Your task to perform on an android device: Open sound settings Image 0: 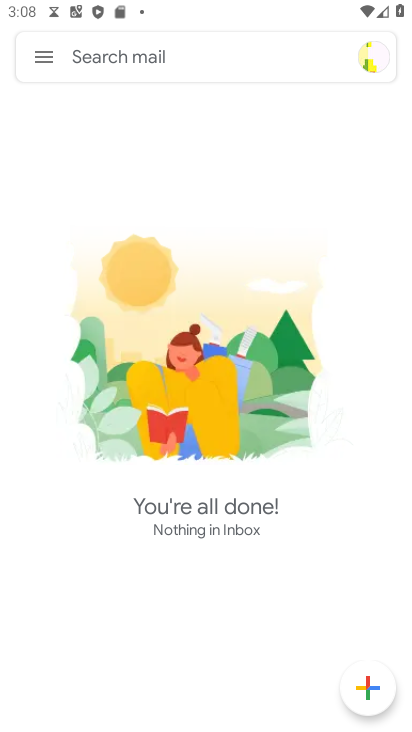
Step 0: drag from (238, 623) to (210, 243)
Your task to perform on an android device: Open sound settings Image 1: 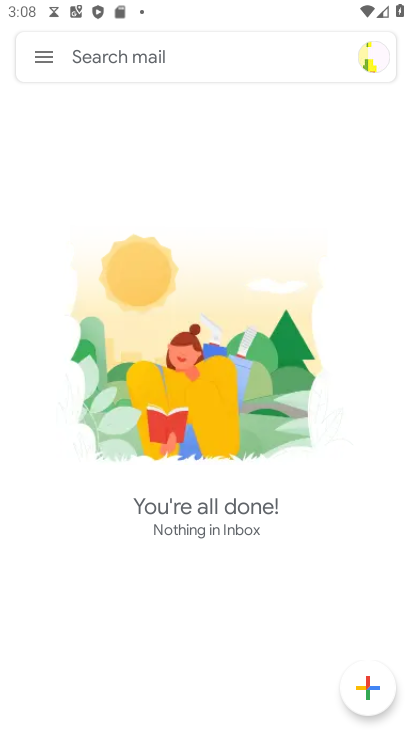
Step 1: click (53, 59)
Your task to perform on an android device: Open sound settings Image 2: 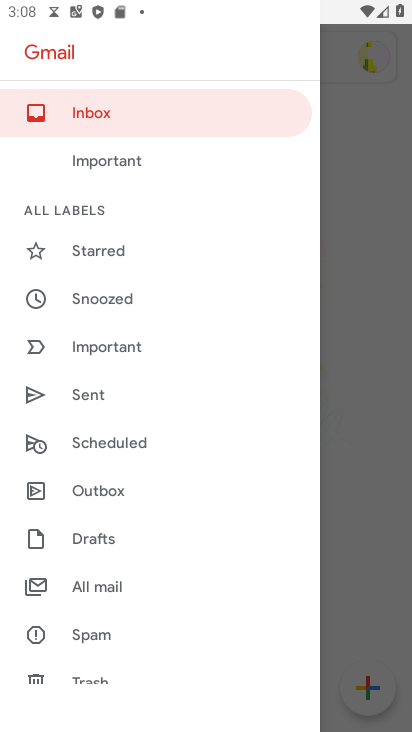
Step 2: drag from (163, 588) to (228, 175)
Your task to perform on an android device: Open sound settings Image 3: 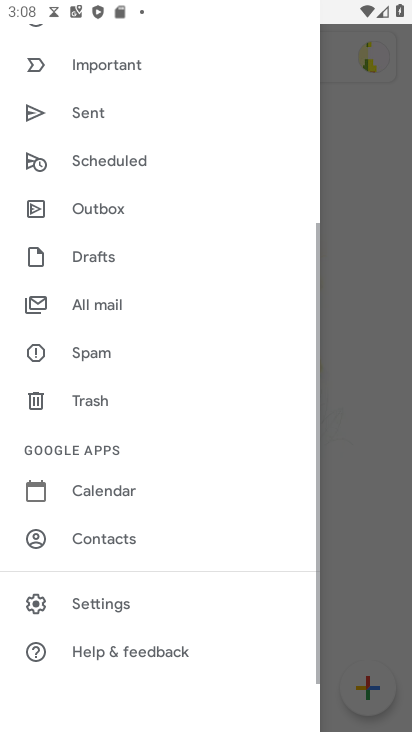
Step 3: click (113, 603)
Your task to perform on an android device: Open sound settings Image 4: 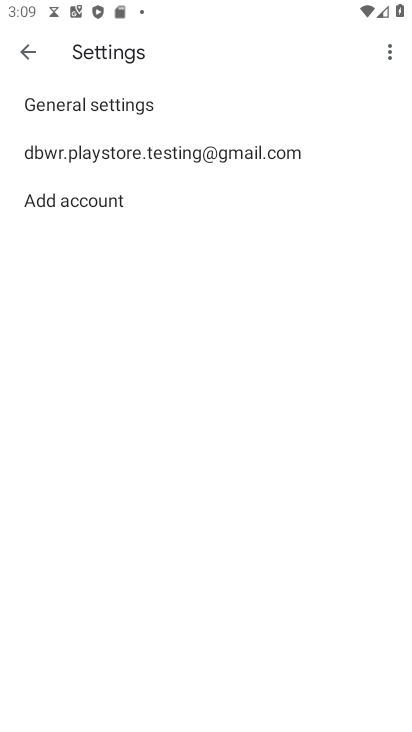
Step 4: press home button
Your task to perform on an android device: Open sound settings Image 5: 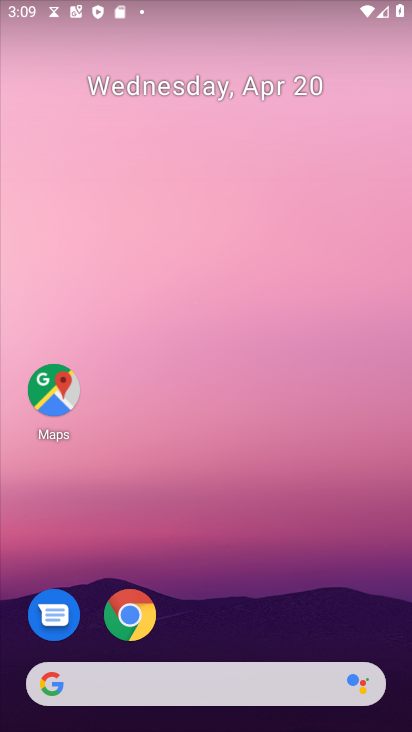
Step 5: drag from (182, 612) to (282, 65)
Your task to perform on an android device: Open sound settings Image 6: 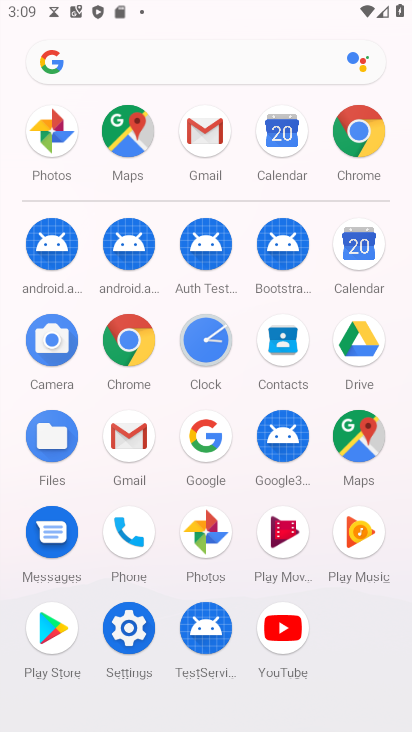
Step 6: click (130, 629)
Your task to perform on an android device: Open sound settings Image 7: 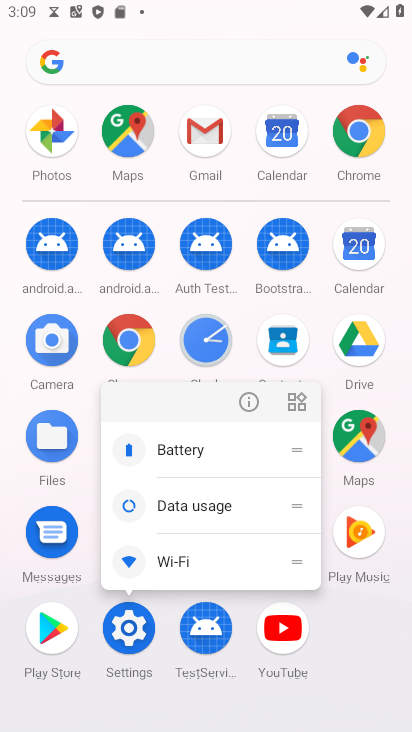
Step 7: click (262, 402)
Your task to perform on an android device: Open sound settings Image 8: 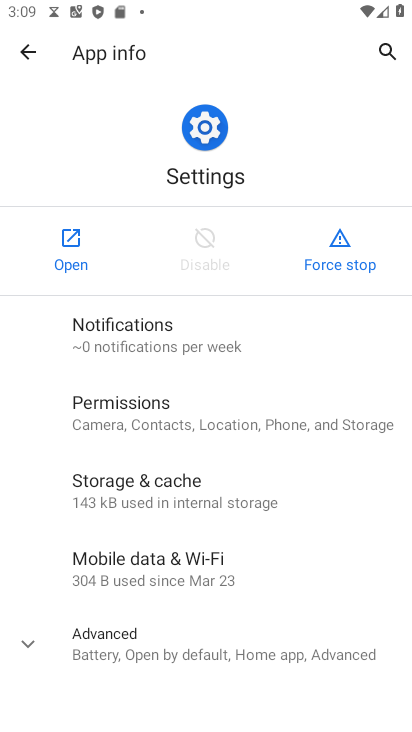
Step 8: click (72, 239)
Your task to perform on an android device: Open sound settings Image 9: 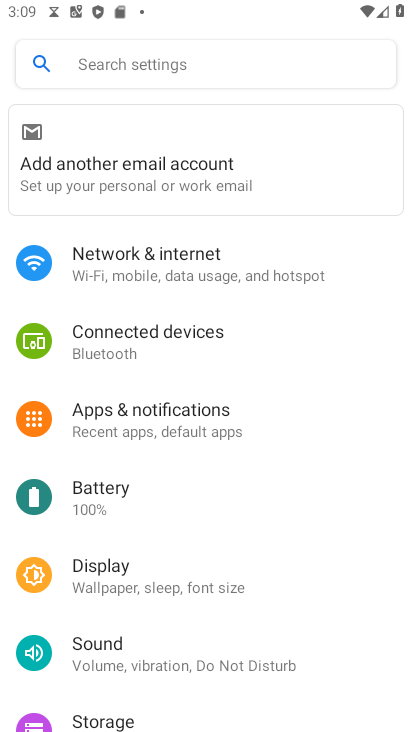
Step 9: click (127, 659)
Your task to perform on an android device: Open sound settings Image 10: 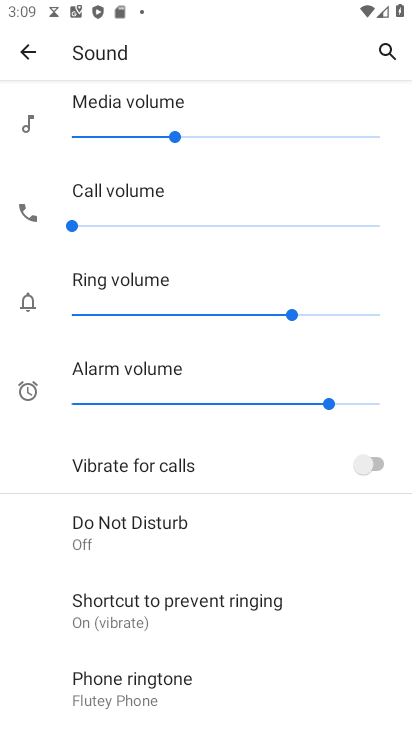
Step 10: task complete